Your task to perform on an android device: Find coffee shops on Maps Image 0: 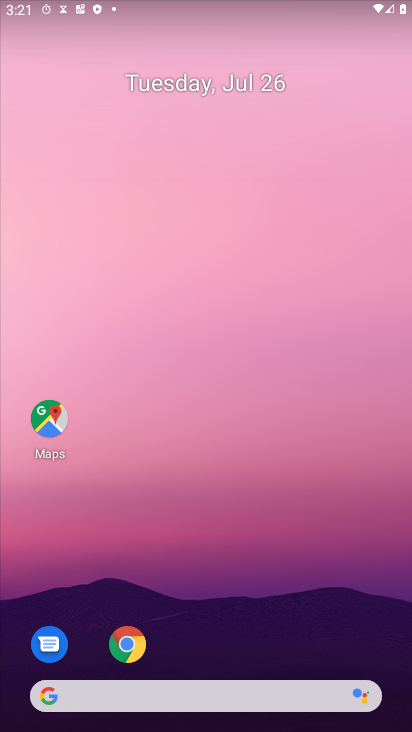
Step 0: press home button
Your task to perform on an android device: Find coffee shops on Maps Image 1: 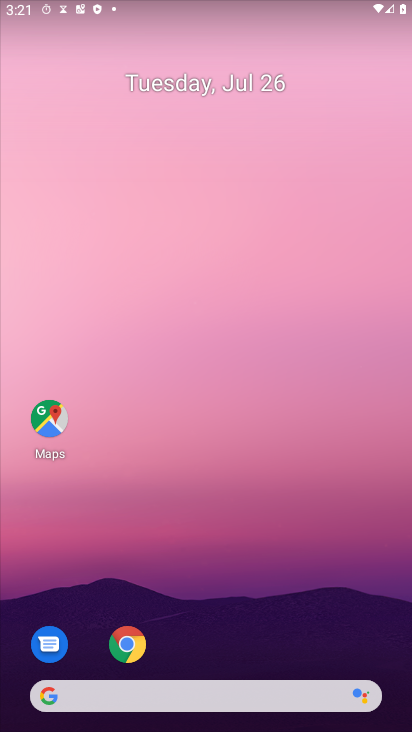
Step 1: click (53, 409)
Your task to perform on an android device: Find coffee shops on Maps Image 2: 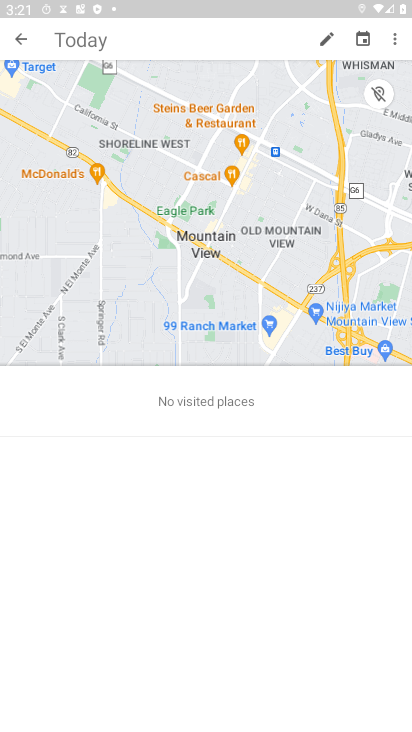
Step 2: click (15, 38)
Your task to perform on an android device: Find coffee shops on Maps Image 3: 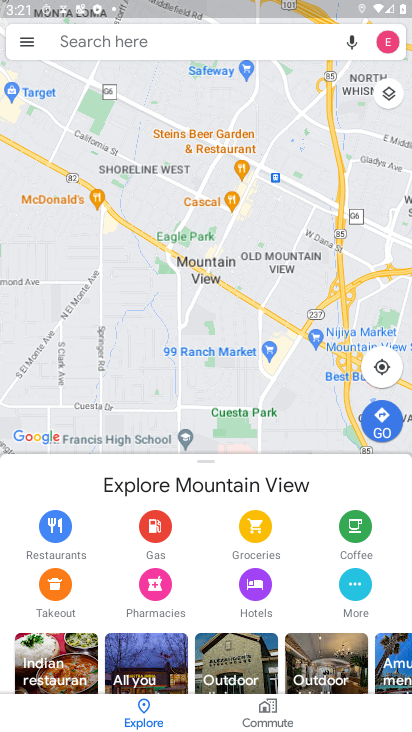
Step 3: click (133, 35)
Your task to perform on an android device: Find coffee shops on Maps Image 4: 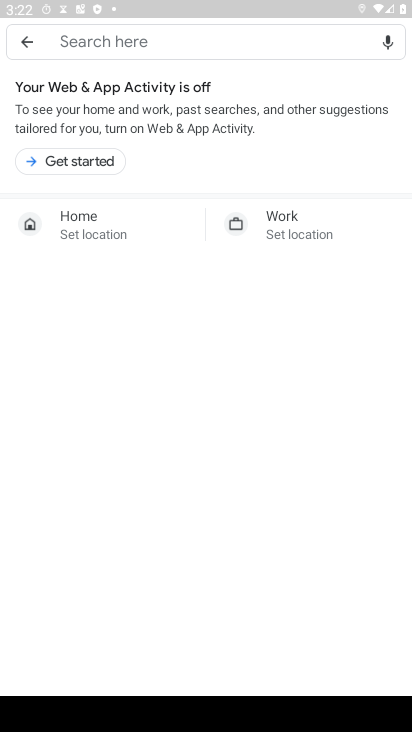
Step 4: type "coffee shops"
Your task to perform on an android device: Find coffee shops on Maps Image 5: 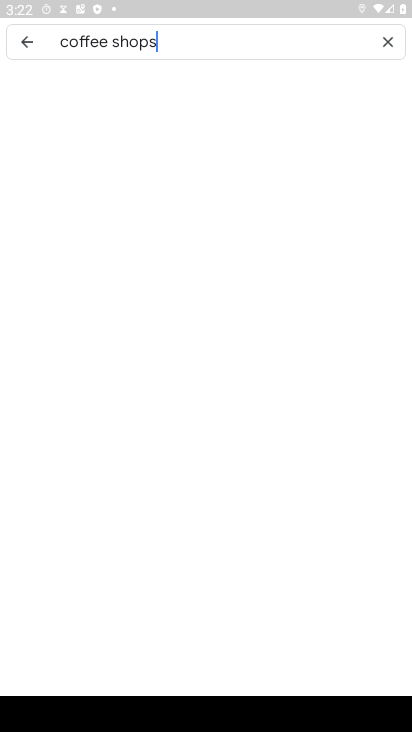
Step 5: press enter
Your task to perform on an android device: Find coffee shops on Maps Image 6: 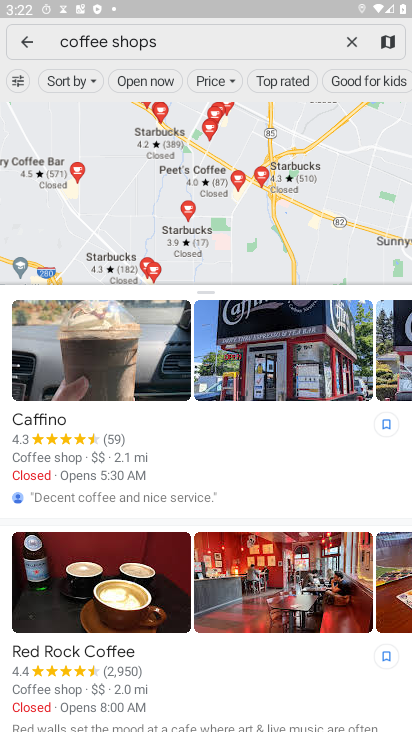
Step 6: task complete